Your task to perform on an android device: empty trash in the gmail app Image 0: 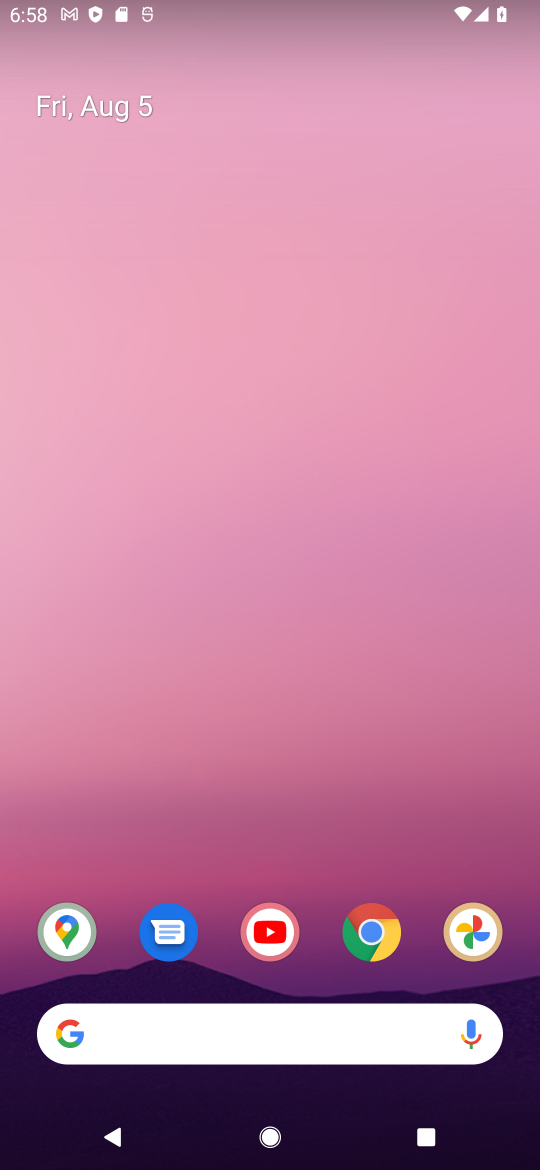
Step 0: drag from (407, 672) to (315, 132)
Your task to perform on an android device: empty trash in the gmail app Image 1: 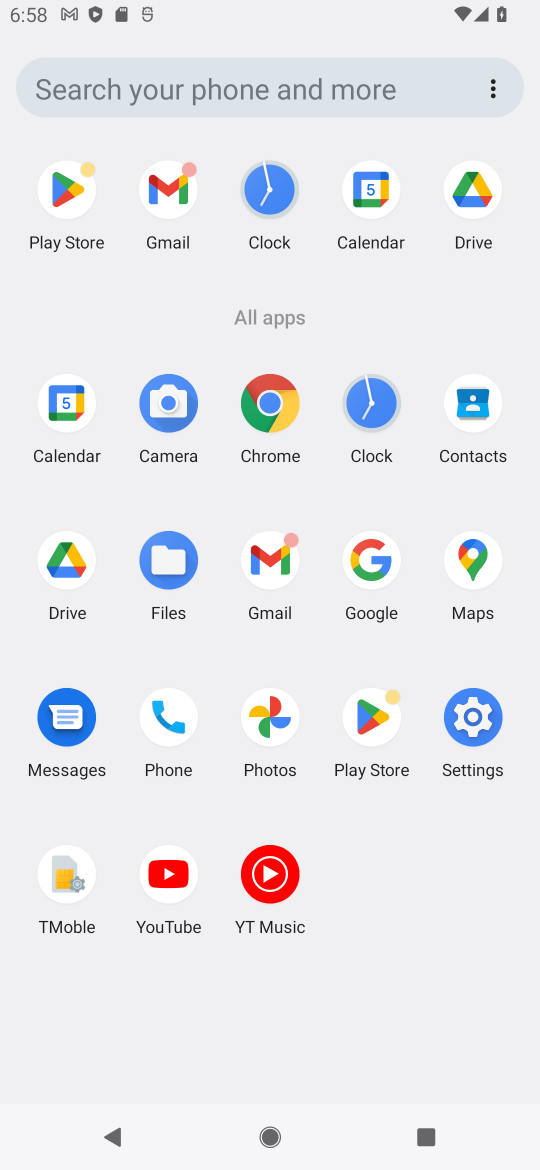
Step 1: click (273, 563)
Your task to perform on an android device: empty trash in the gmail app Image 2: 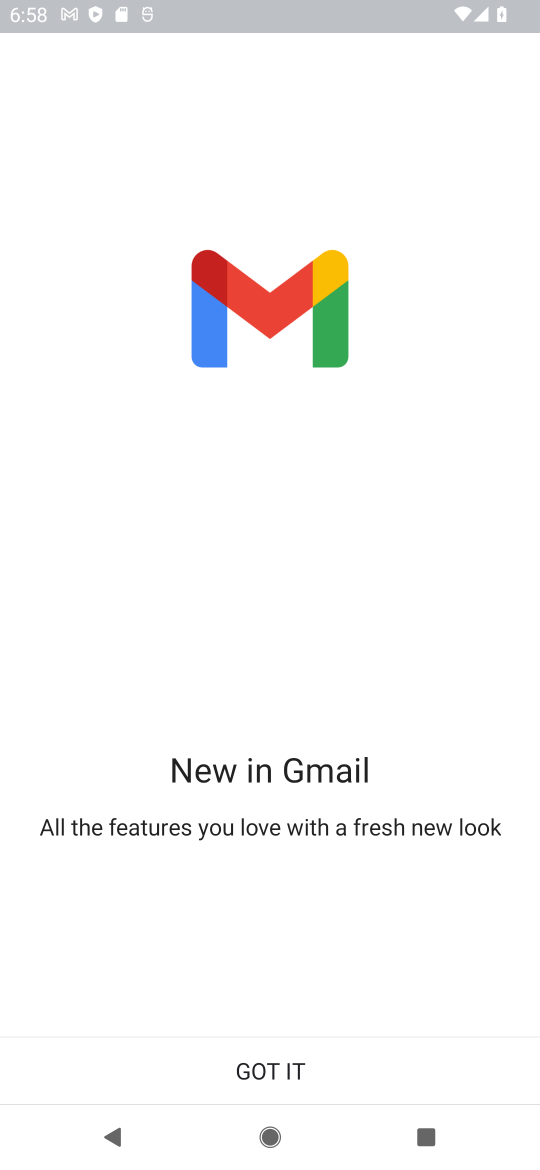
Step 2: click (229, 1042)
Your task to perform on an android device: empty trash in the gmail app Image 3: 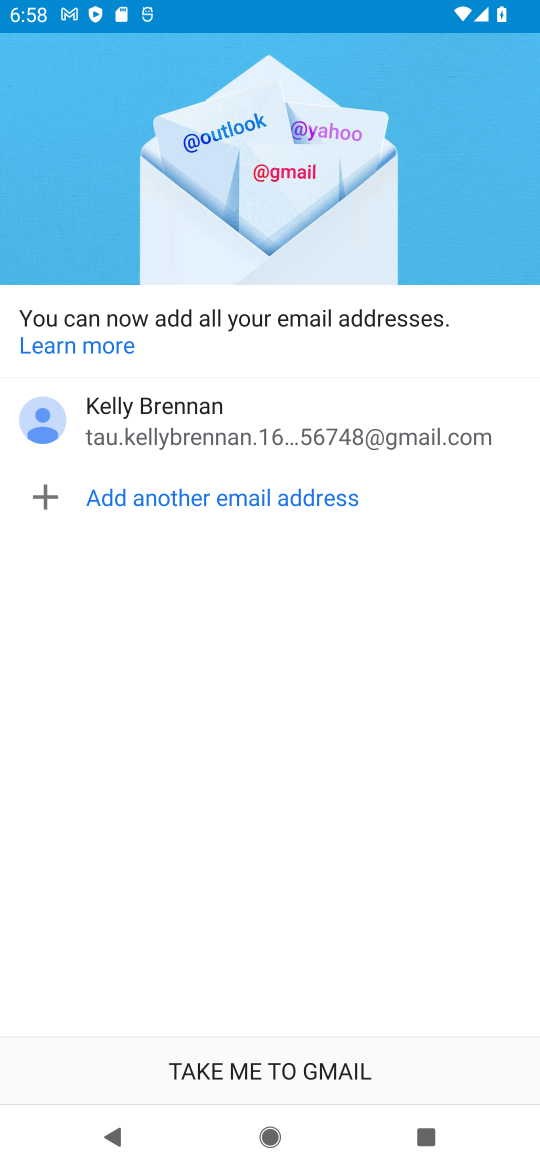
Step 3: click (229, 1042)
Your task to perform on an android device: empty trash in the gmail app Image 4: 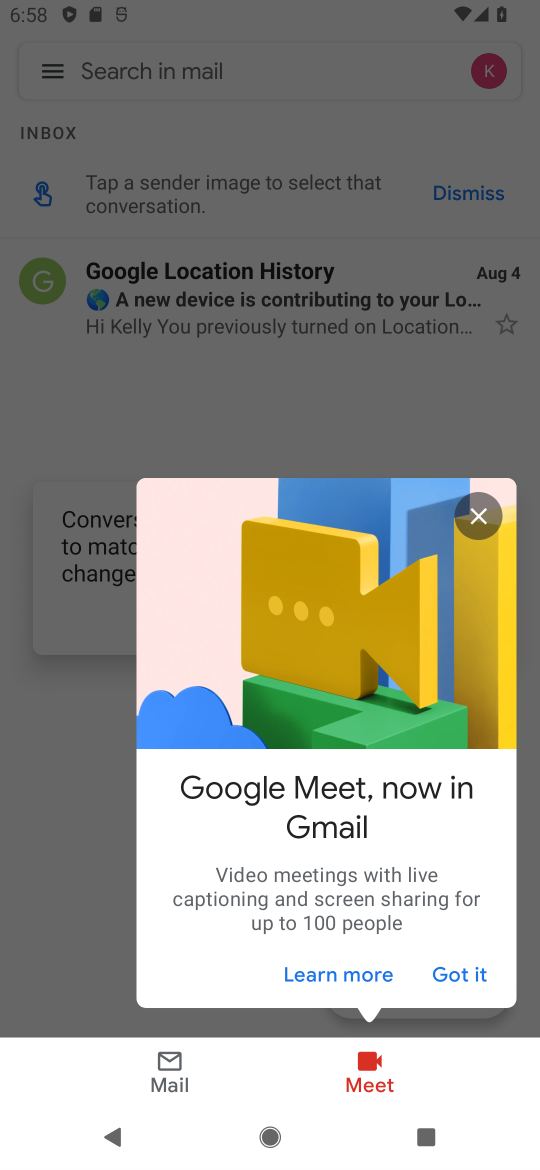
Step 4: click (61, 754)
Your task to perform on an android device: empty trash in the gmail app Image 5: 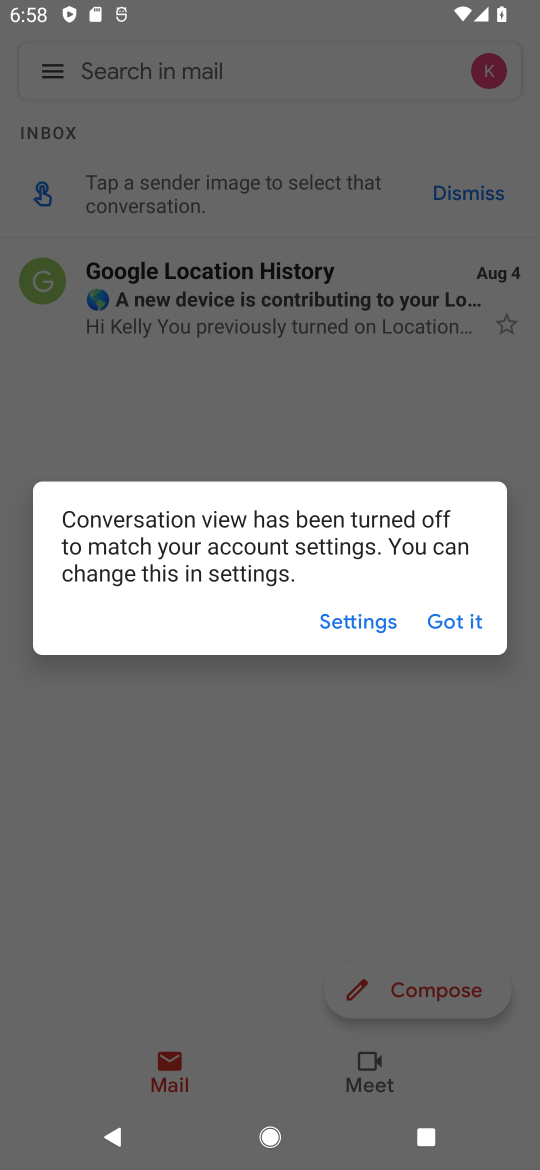
Step 5: click (470, 620)
Your task to perform on an android device: empty trash in the gmail app Image 6: 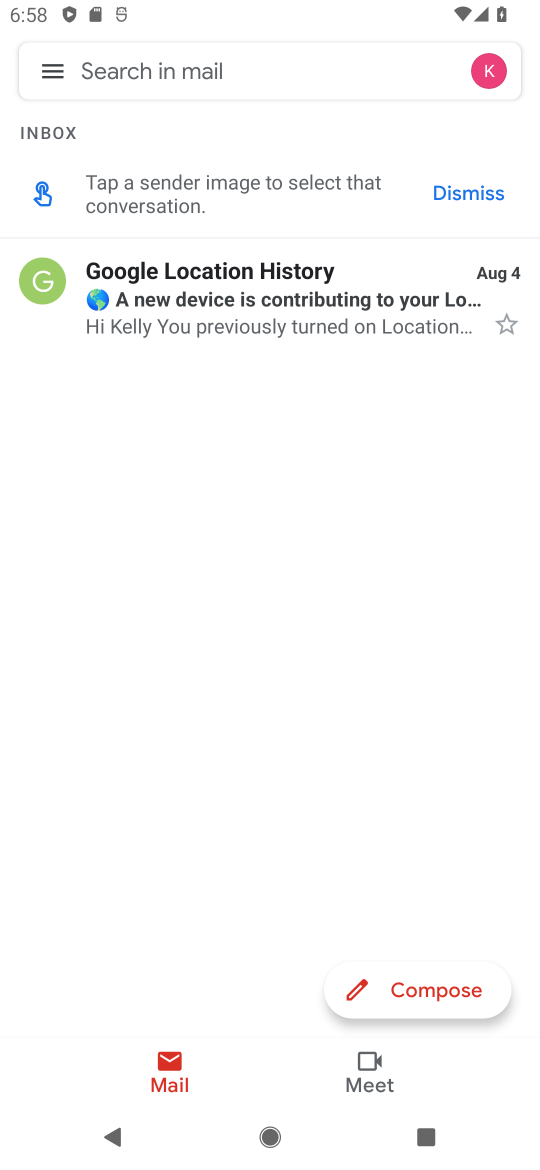
Step 6: click (51, 62)
Your task to perform on an android device: empty trash in the gmail app Image 7: 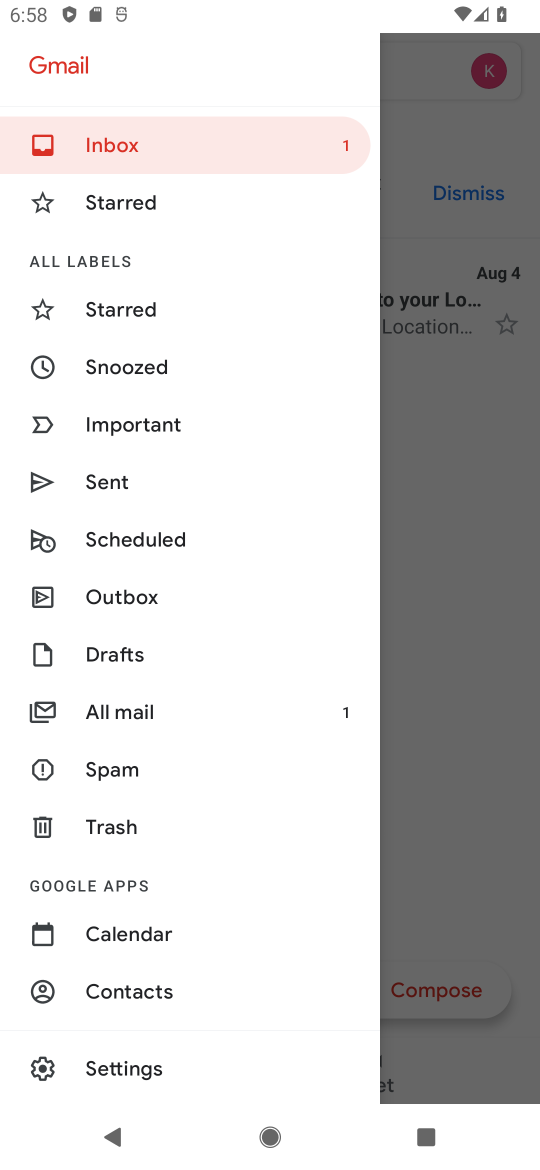
Step 7: click (130, 821)
Your task to perform on an android device: empty trash in the gmail app Image 8: 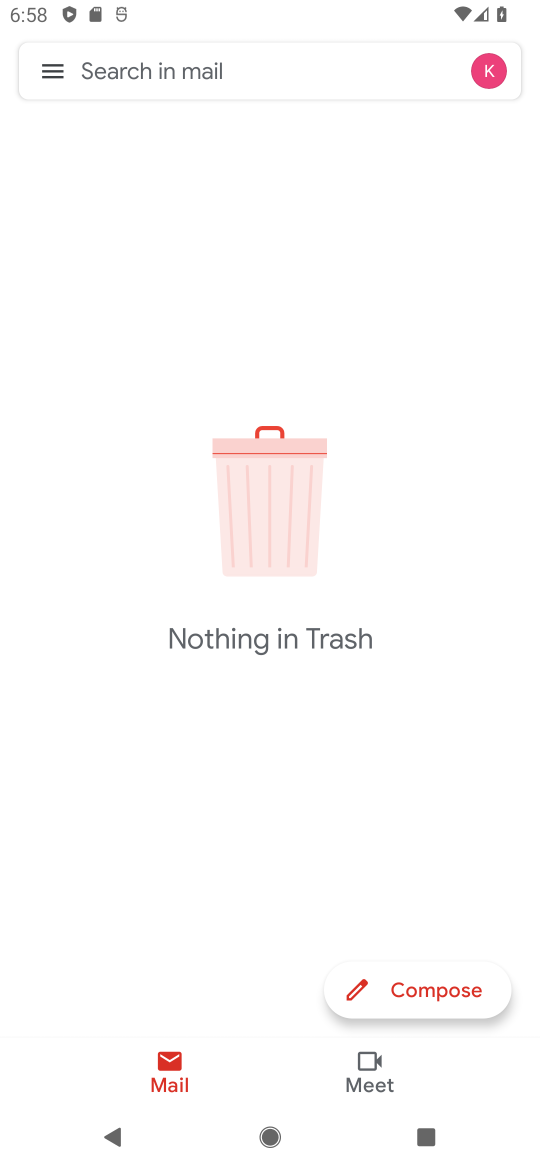
Step 8: task complete